Your task to perform on an android device: check the backup settings in the google photos Image 0: 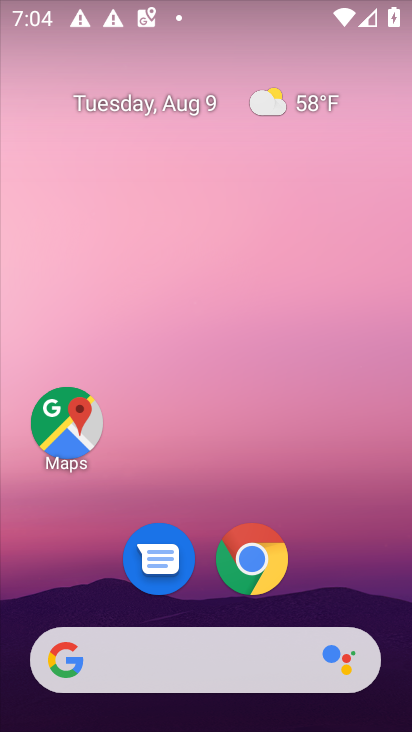
Step 0: drag from (219, 78) to (235, 10)
Your task to perform on an android device: check the backup settings in the google photos Image 1: 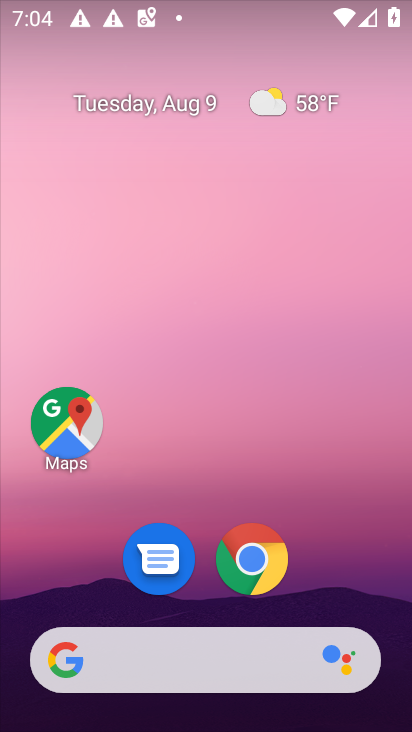
Step 1: drag from (201, 576) to (232, 144)
Your task to perform on an android device: check the backup settings in the google photos Image 2: 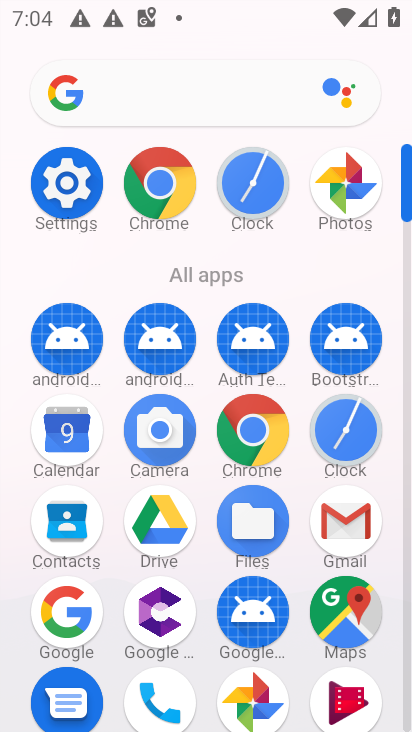
Step 2: click (239, 693)
Your task to perform on an android device: check the backup settings in the google photos Image 3: 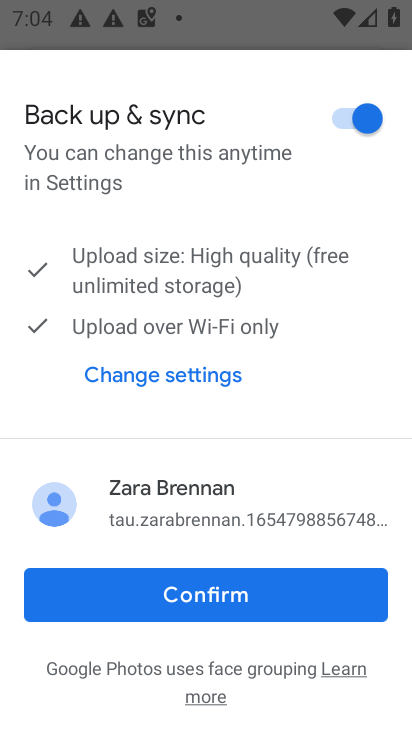
Step 3: click (194, 587)
Your task to perform on an android device: check the backup settings in the google photos Image 4: 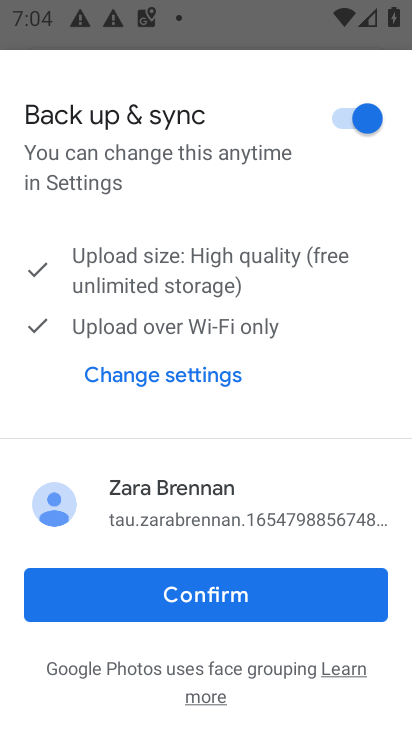
Step 4: click (214, 597)
Your task to perform on an android device: check the backup settings in the google photos Image 5: 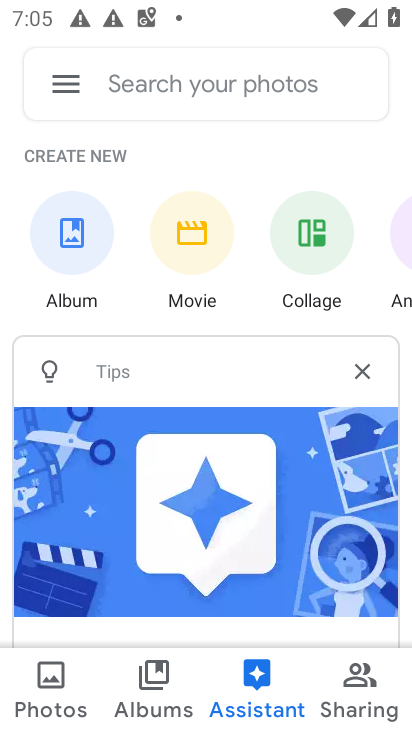
Step 5: click (56, 84)
Your task to perform on an android device: check the backup settings in the google photos Image 6: 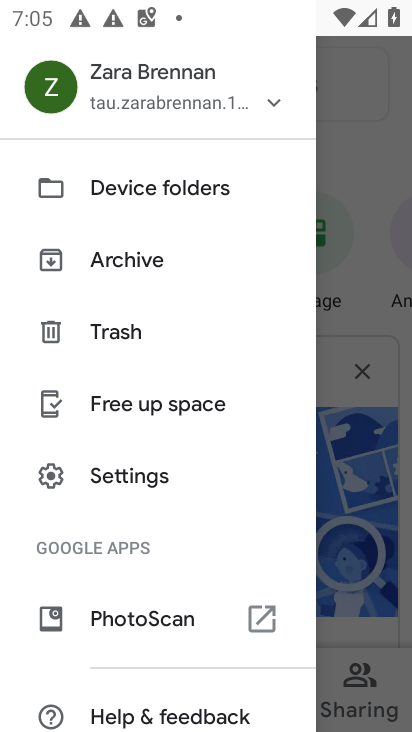
Step 6: click (123, 468)
Your task to perform on an android device: check the backup settings in the google photos Image 7: 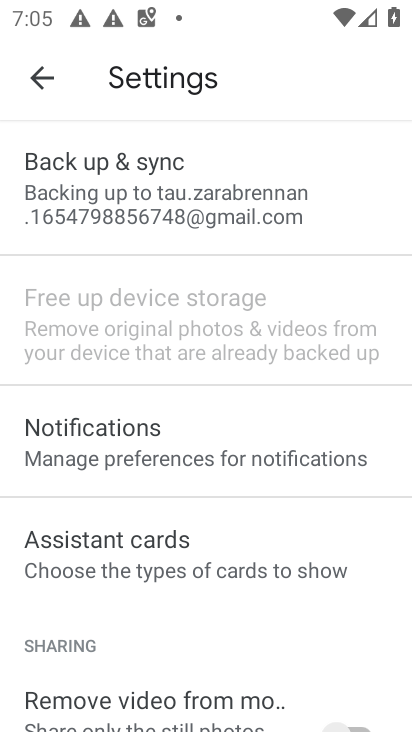
Step 7: click (114, 171)
Your task to perform on an android device: check the backup settings in the google photos Image 8: 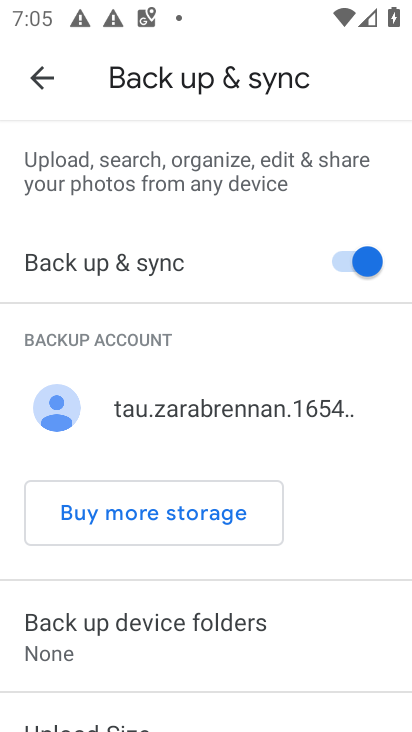
Step 8: task complete